Your task to perform on an android device: Go to display settings Image 0: 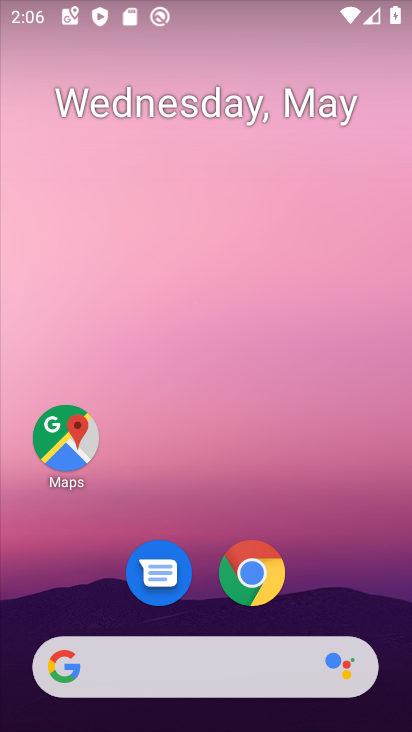
Step 0: drag from (310, 560) to (321, 20)
Your task to perform on an android device: Go to display settings Image 1: 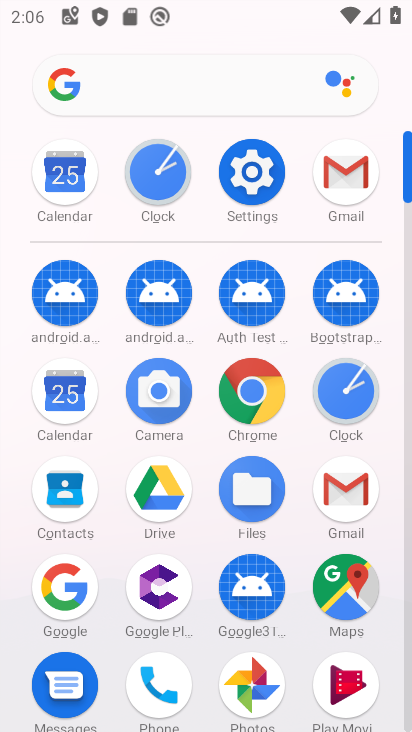
Step 1: click (253, 168)
Your task to perform on an android device: Go to display settings Image 2: 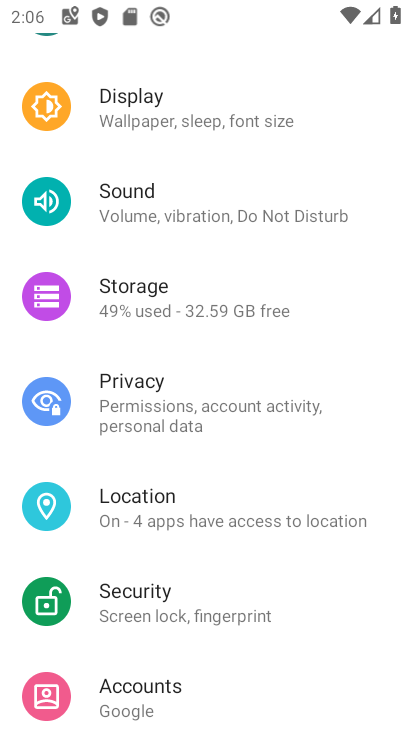
Step 2: click (239, 102)
Your task to perform on an android device: Go to display settings Image 3: 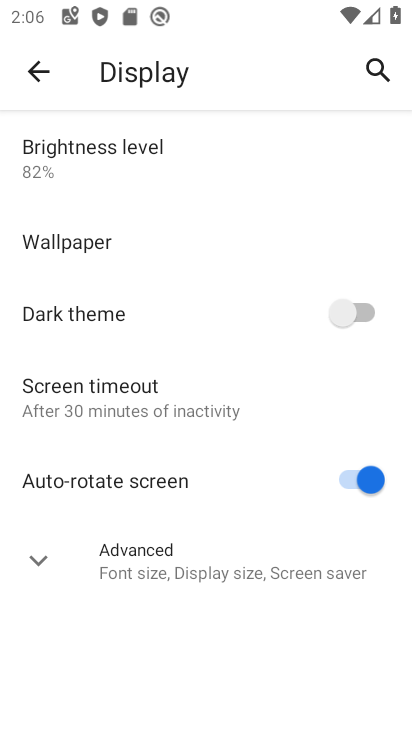
Step 3: task complete